Your task to perform on an android device: read, delete, or share a saved page in the chrome app Image 0: 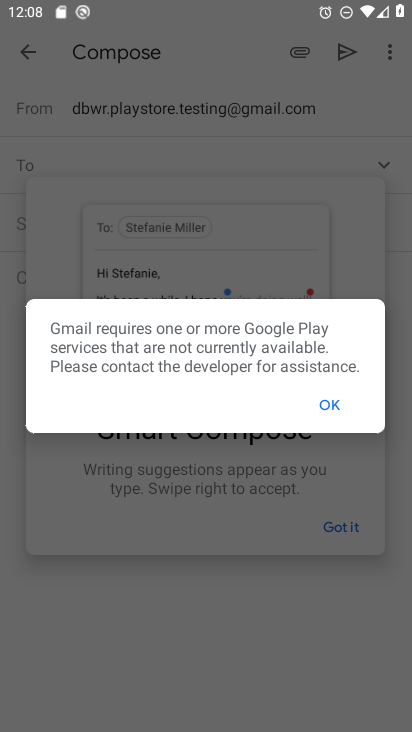
Step 0: press home button
Your task to perform on an android device: read, delete, or share a saved page in the chrome app Image 1: 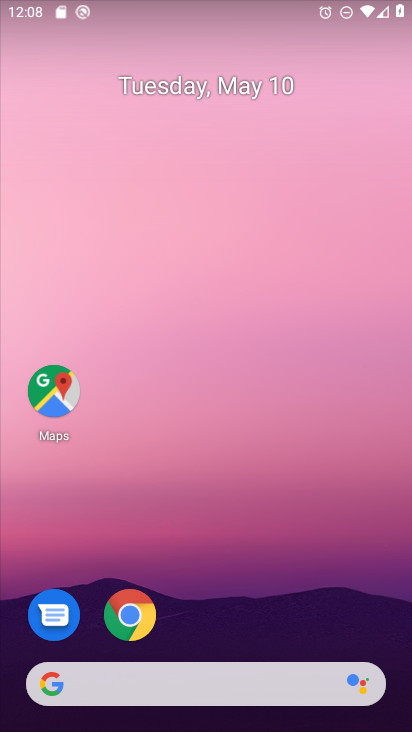
Step 1: drag from (254, 704) to (326, 239)
Your task to perform on an android device: read, delete, or share a saved page in the chrome app Image 2: 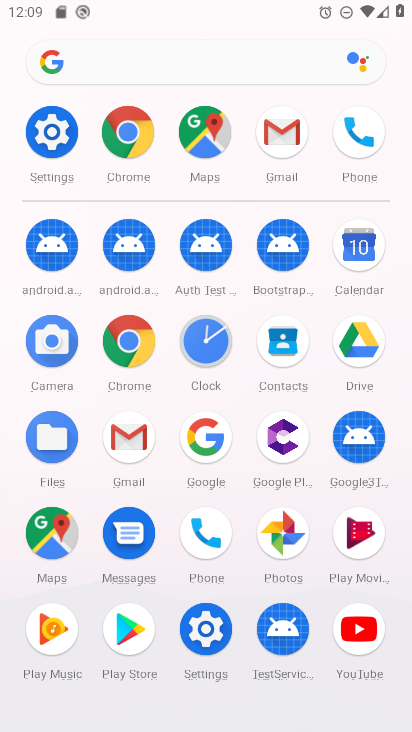
Step 2: click (133, 343)
Your task to perform on an android device: read, delete, or share a saved page in the chrome app Image 3: 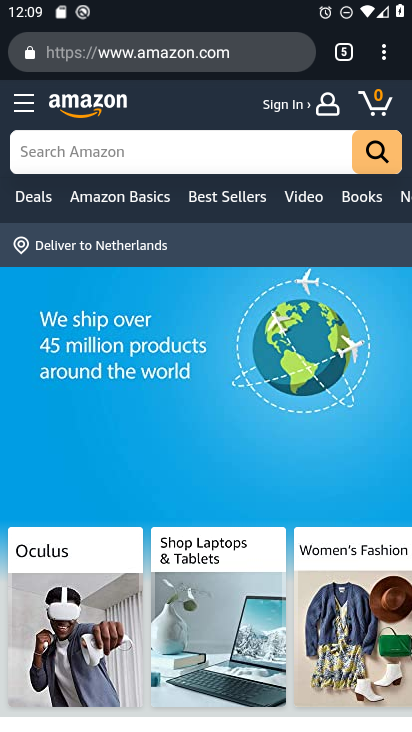
Step 3: click (384, 70)
Your task to perform on an android device: read, delete, or share a saved page in the chrome app Image 4: 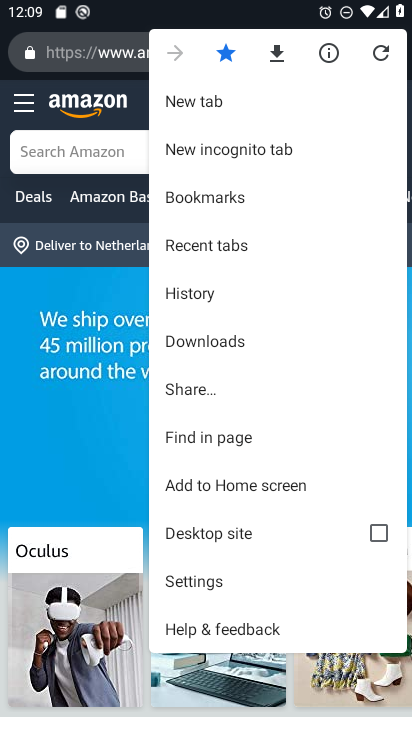
Step 4: click (206, 384)
Your task to perform on an android device: read, delete, or share a saved page in the chrome app Image 5: 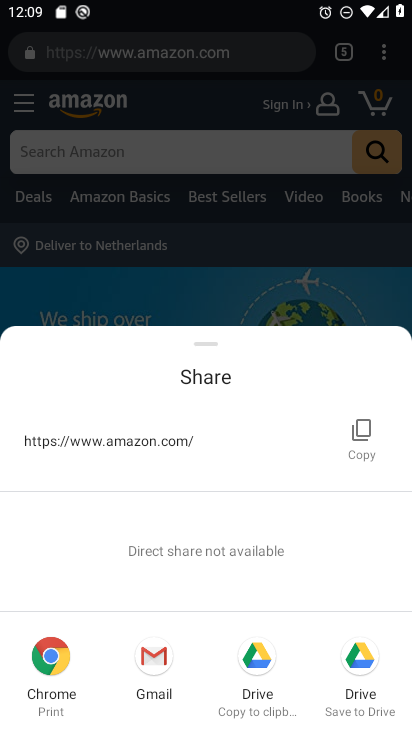
Step 5: task complete